Your task to perform on an android device: Open Chrome and go to the settings page Image 0: 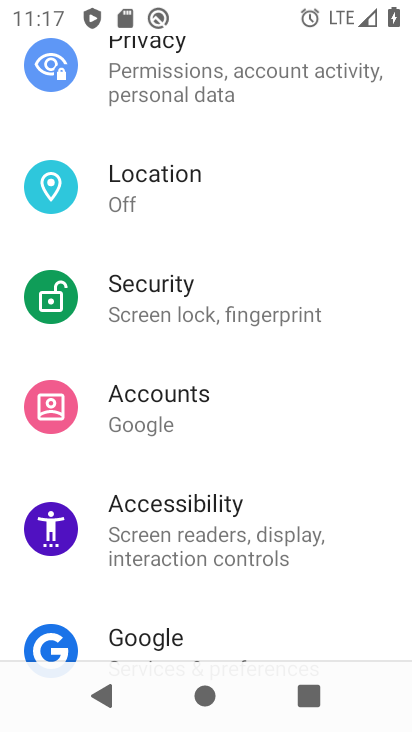
Step 0: drag from (152, 553) to (238, 136)
Your task to perform on an android device: Open Chrome and go to the settings page Image 1: 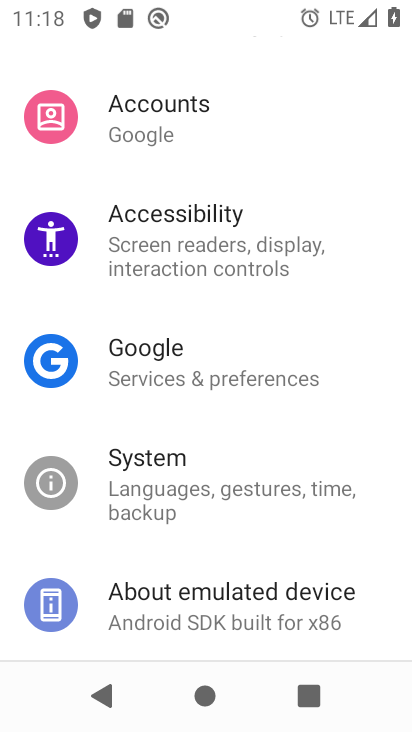
Step 1: press home button
Your task to perform on an android device: Open Chrome and go to the settings page Image 2: 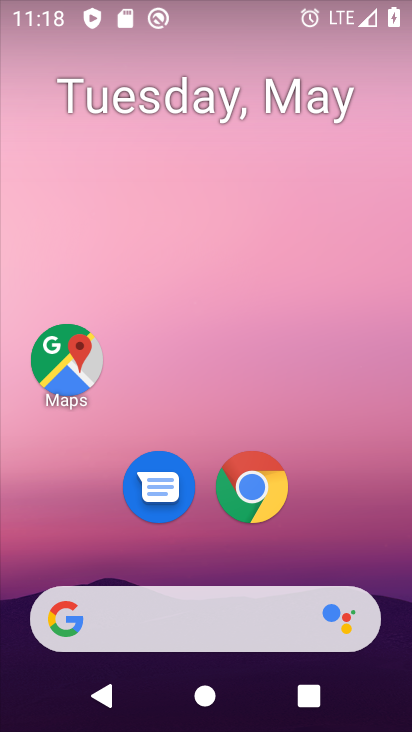
Step 2: drag from (179, 545) to (231, 196)
Your task to perform on an android device: Open Chrome and go to the settings page Image 3: 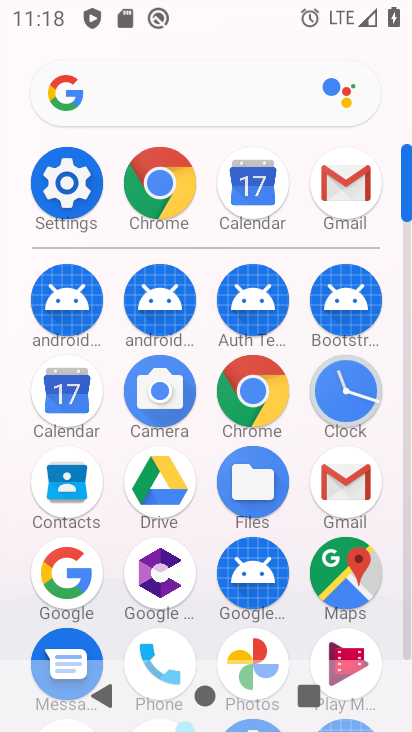
Step 3: click (184, 166)
Your task to perform on an android device: Open Chrome and go to the settings page Image 4: 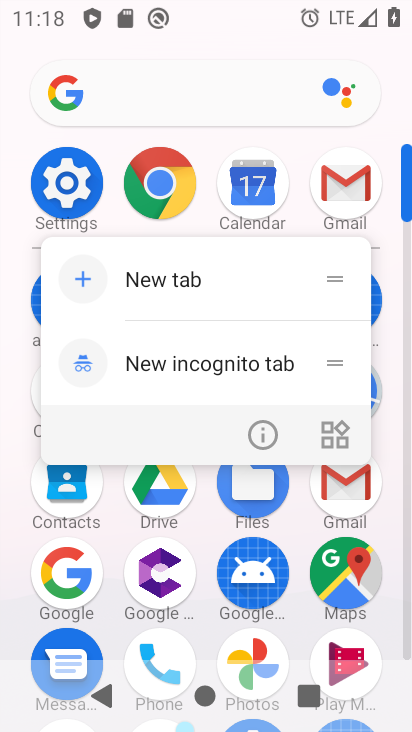
Step 4: click (264, 443)
Your task to perform on an android device: Open Chrome and go to the settings page Image 5: 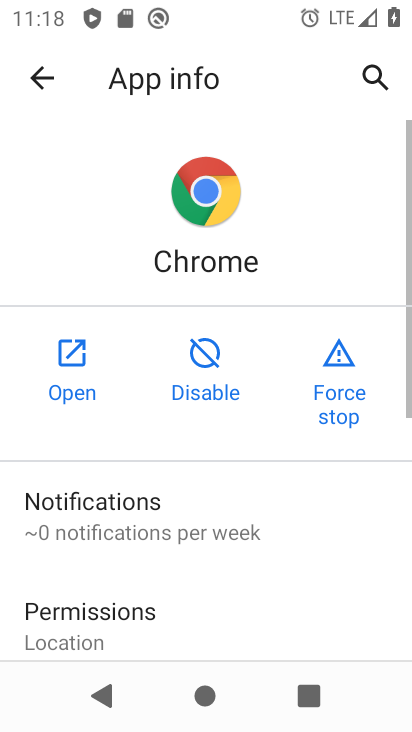
Step 5: click (52, 370)
Your task to perform on an android device: Open Chrome and go to the settings page Image 6: 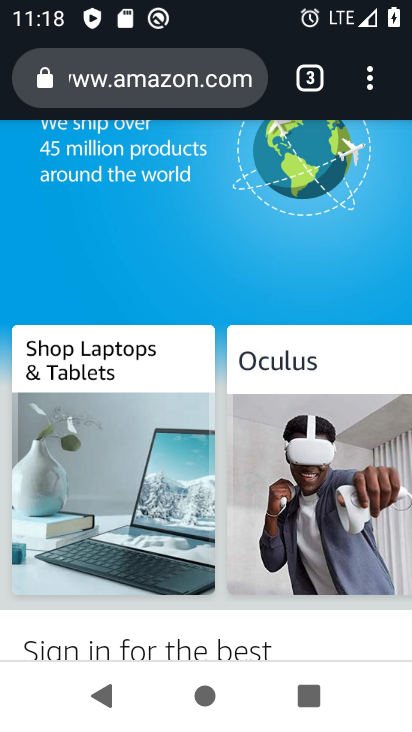
Step 6: drag from (238, 493) to (304, 39)
Your task to perform on an android device: Open Chrome and go to the settings page Image 7: 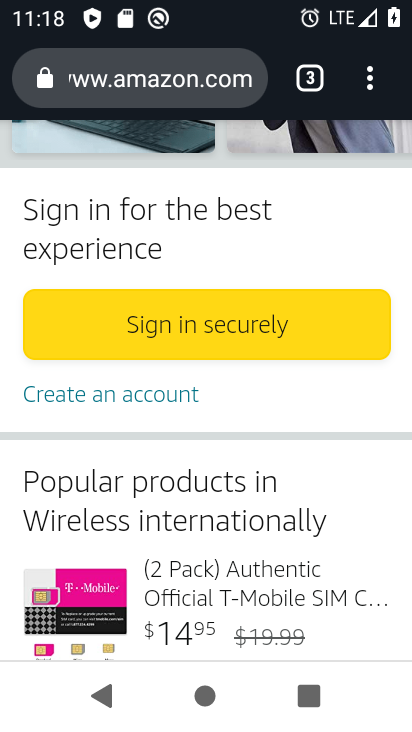
Step 7: drag from (125, 643) to (221, 296)
Your task to perform on an android device: Open Chrome and go to the settings page Image 8: 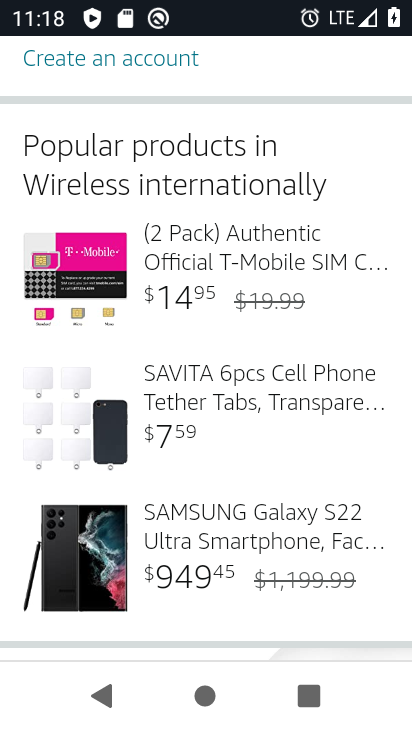
Step 8: drag from (215, 139) to (280, 561)
Your task to perform on an android device: Open Chrome and go to the settings page Image 9: 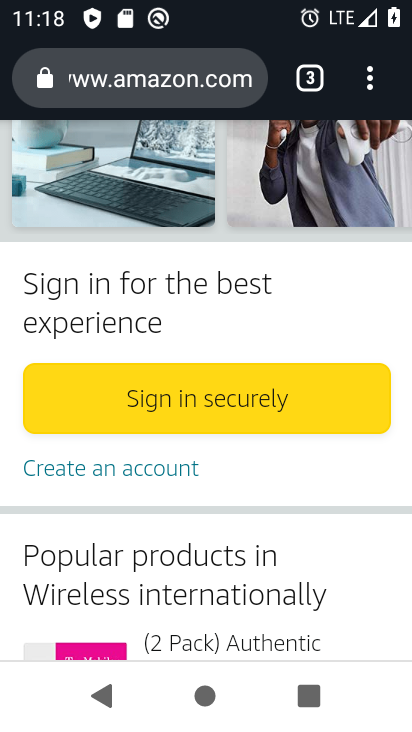
Step 9: click (366, 76)
Your task to perform on an android device: Open Chrome and go to the settings page Image 10: 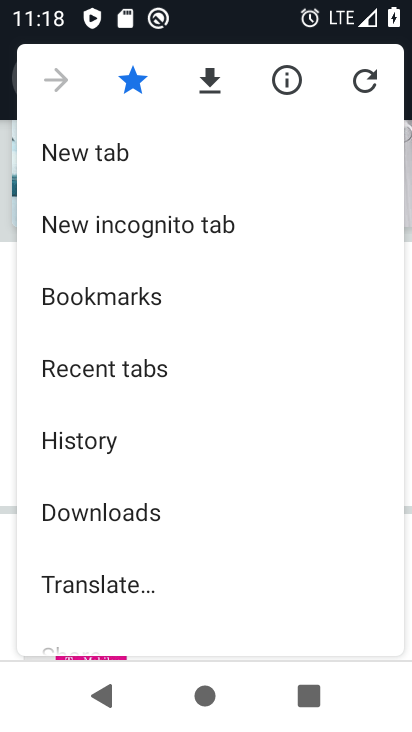
Step 10: drag from (125, 529) to (227, 92)
Your task to perform on an android device: Open Chrome and go to the settings page Image 11: 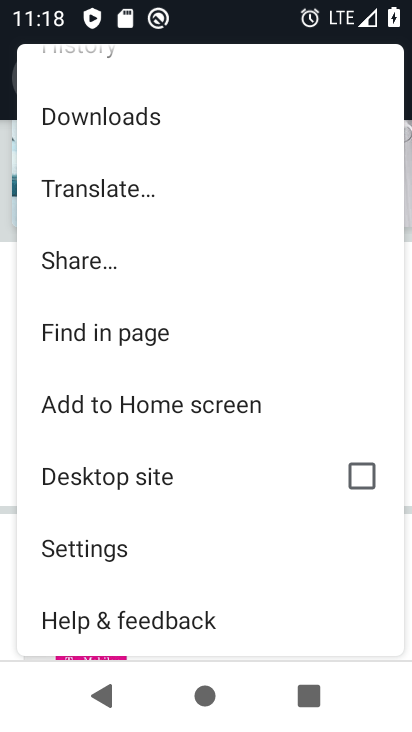
Step 11: click (118, 538)
Your task to perform on an android device: Open Chrome and go to the settings page Image 12: 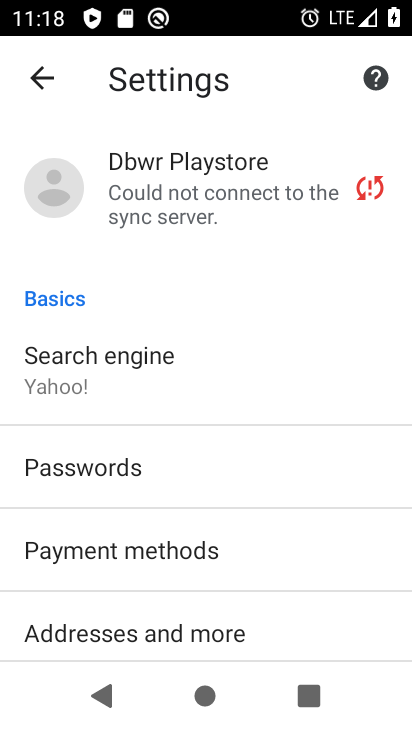
Step 12: task complete